Your task to perform on an android device: see tabs open on other devices in the chrome app Image 0: 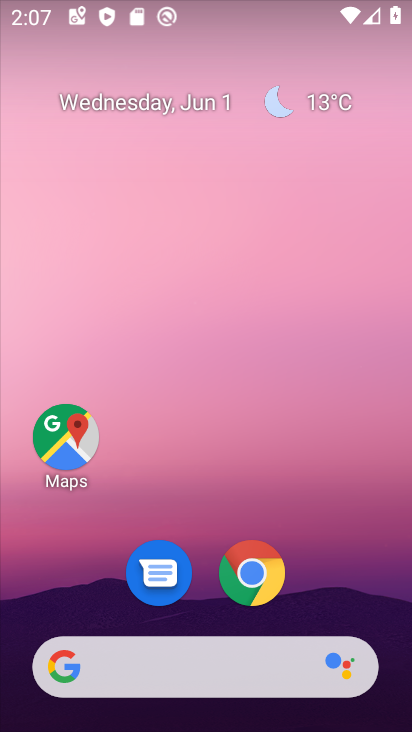
Step 0: click (252, 566)
Your task to perform on an android device: see tabs open on other devices in the chrome app Image 1: 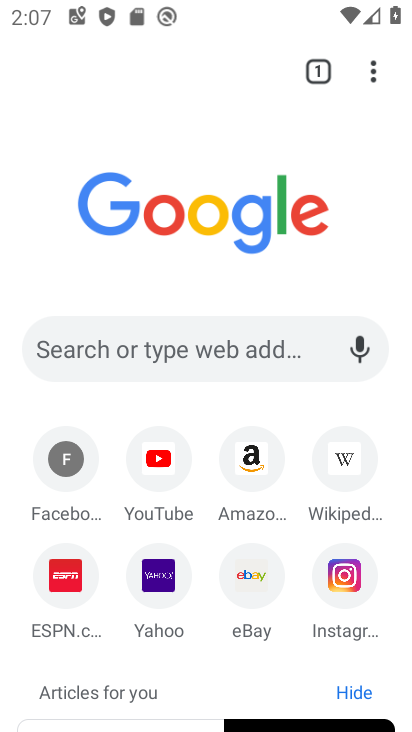
Step 1: click (319, 59)
Your task to perform on an android device: see tabs open on other devices in the chrome app Image 2: 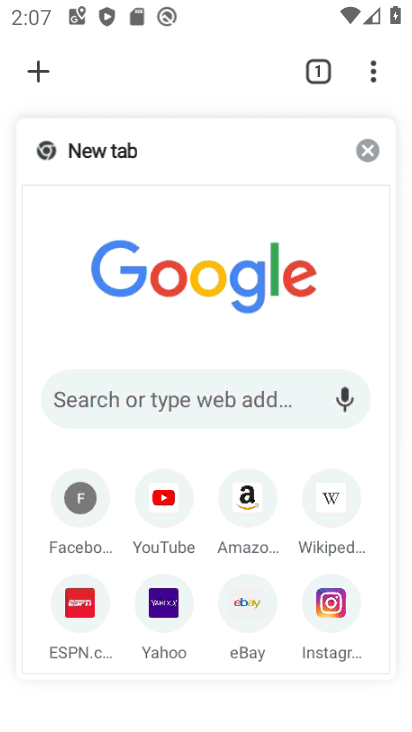
Step 2: task complete